Your task to perform on an android device: choose inbox layout in the gmail app Image 0: 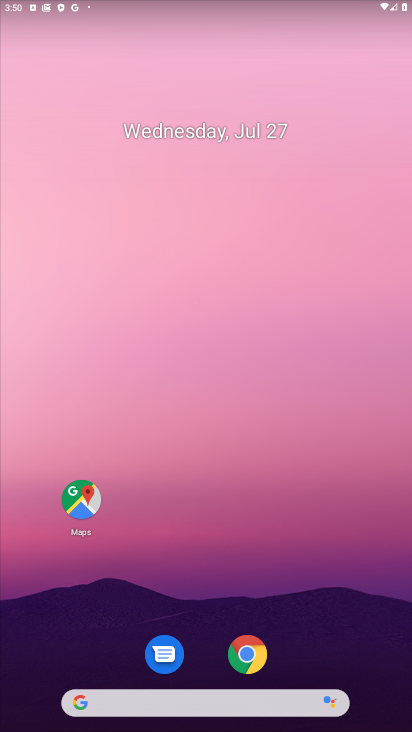
Step 0: drag from (271, 684) to (267, 22)
Your task to perform on an android device: choose inbox layout in the gmail app Image 1: 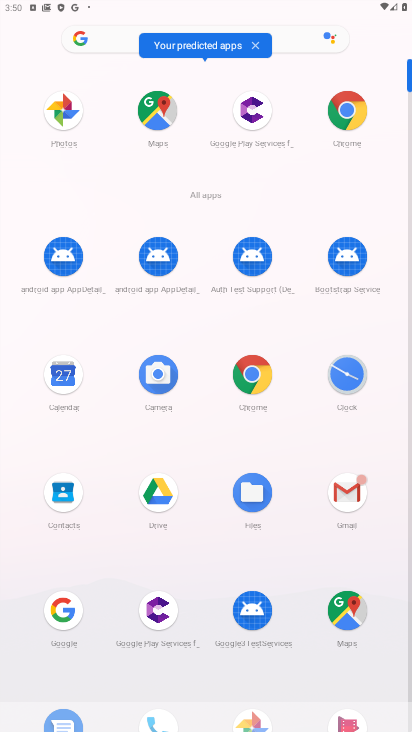
Step 1: click (356, 493)
Your task to perform on an android device: choose inbox layout in the gmail app Image 2: 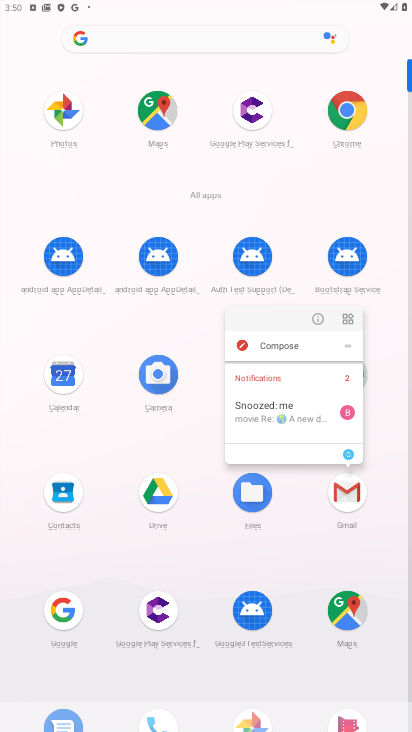
Step 2: click (359, 495)
Your task to perform on an android device: choose inbox layout in the gmail app Image 3: 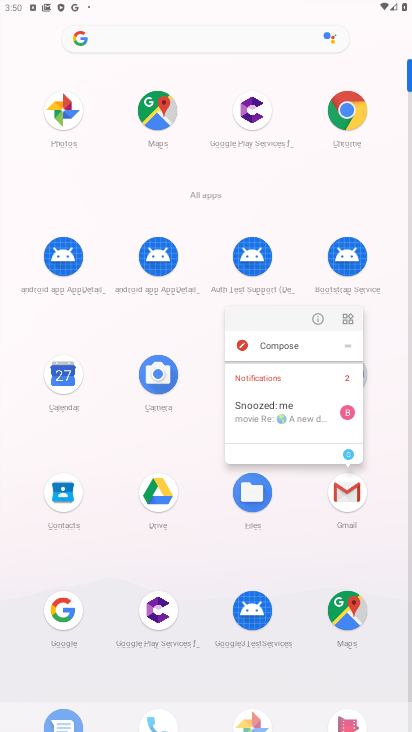
Step 3: click (353, 496)
Your task to perform on an android device: choose inbox layout in the gmail app Image 4: 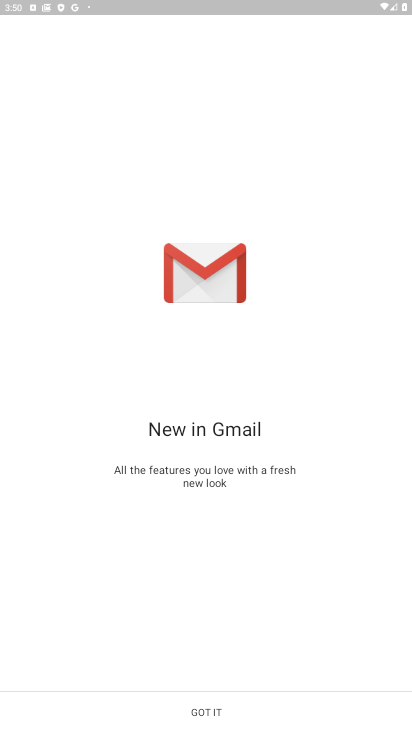
Step 4: click (207, 715)
Your task to perform on an android device: choose inbox layout in the gmail app Image 5: 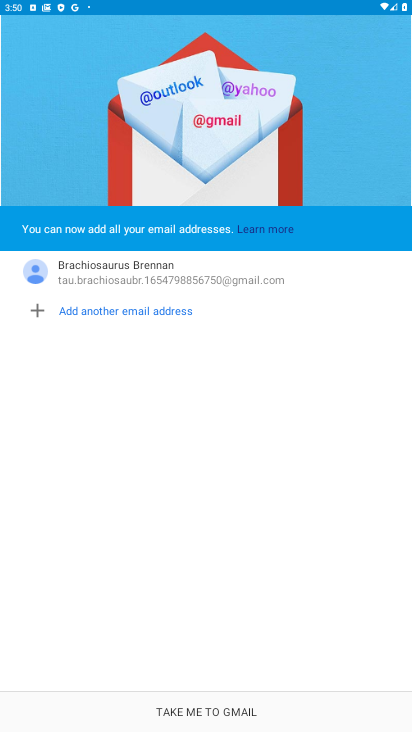
Step 5: click (194, 715)
Your task to perform on an android device: choose inbox layout in the gmail app Image 6: 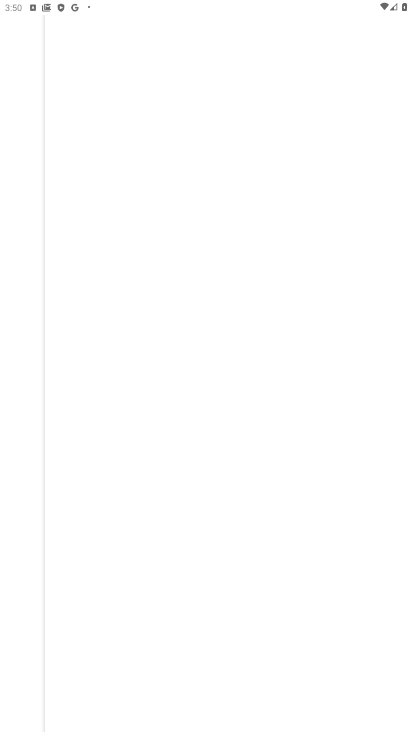
Step 6: click (194, 714)
Your task to perform on an android device: choose inbox layout in the gmail app Image 7: 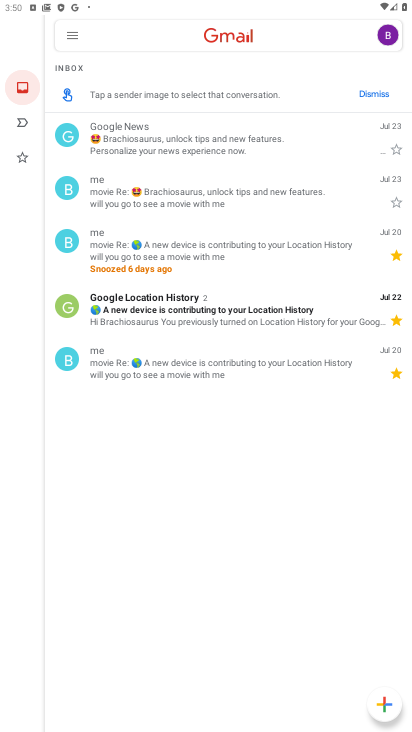
Step 7: click (78, 37)
Your task to perform on an android device: choose inbox layout in the gmail app Image 8: 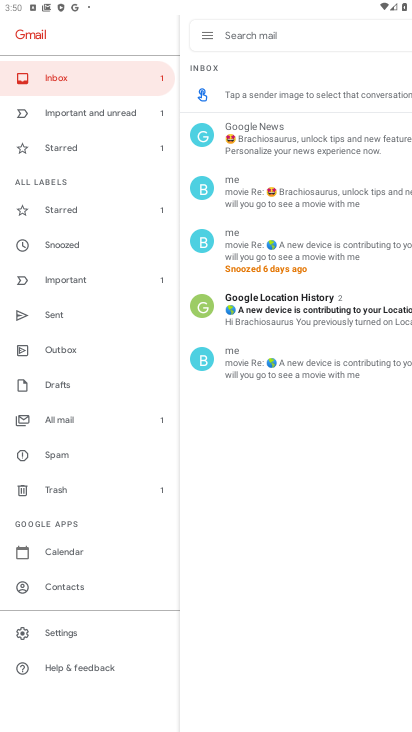
Step 8: click (69, 630)
Your task to perform on an android device: choose inbox layout in the gmail app Image 9: 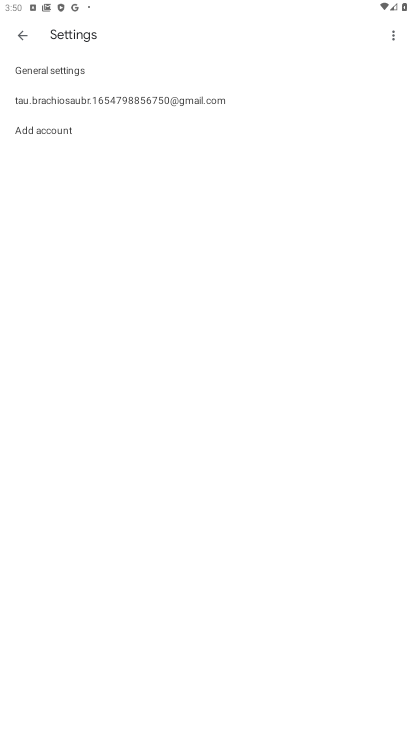
Step 9: click (125, 94)
Your task to perform on an android device: choose inbox layout in the gmail app Image 10: 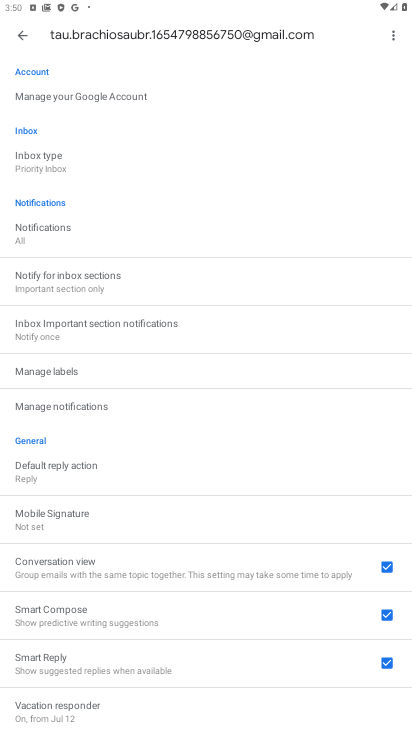
Step 10: click (38, 160)
Your task to perform on an android device: choose inbox layout in the gmail app Image 11: 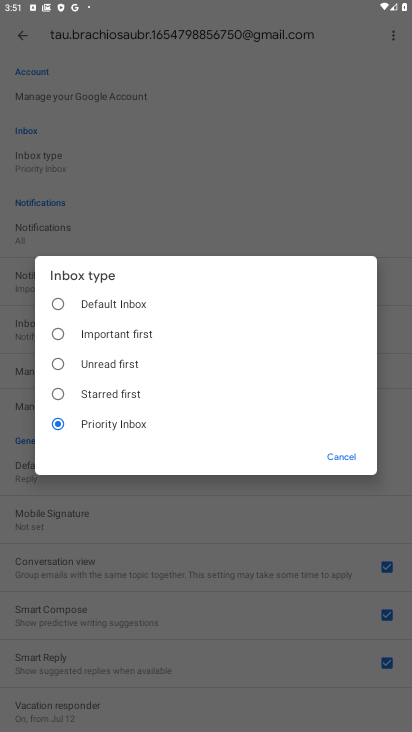
Step 11: click (82, 330)
Your task to perform on an android device: choose inbox layout in the gmail app Image 12: 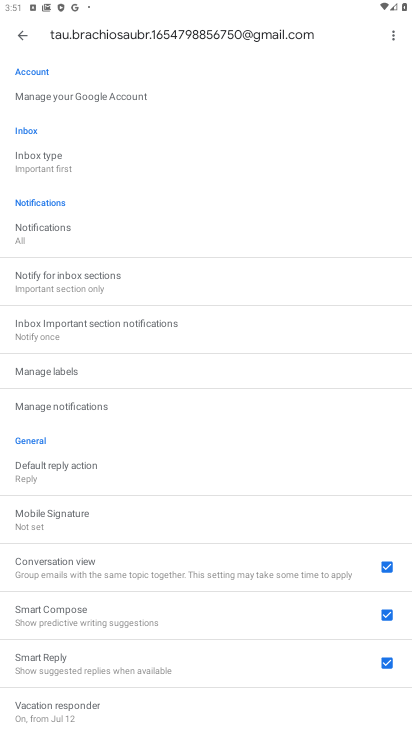
Step 12: task complete